Your task to perform on an android device: set the stopwatch Image 0: 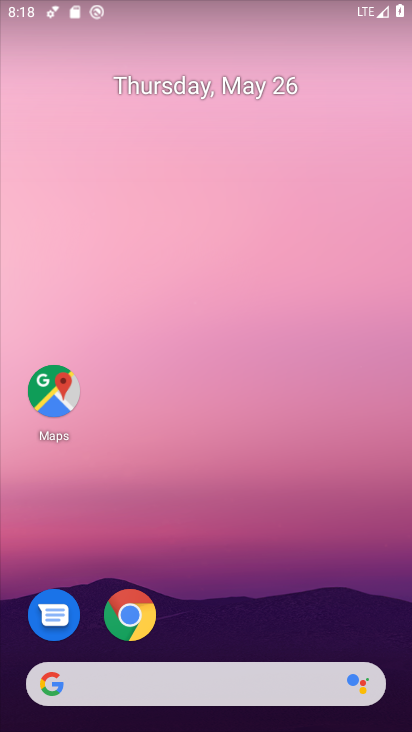
Step 0: drag from (187, 389) to (185, 158)
Your task to perform on an android device: set the stopwatch Image 1: 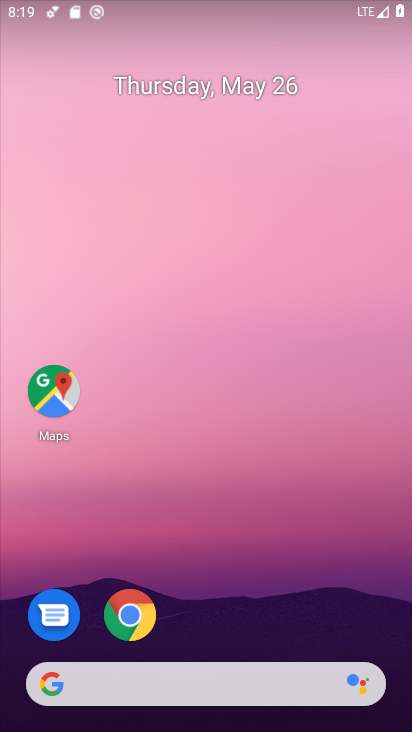
Step 1: drag from (237, 645) to (213, 256)
Your task to perform on an android device: set the stopwatch Image 2: 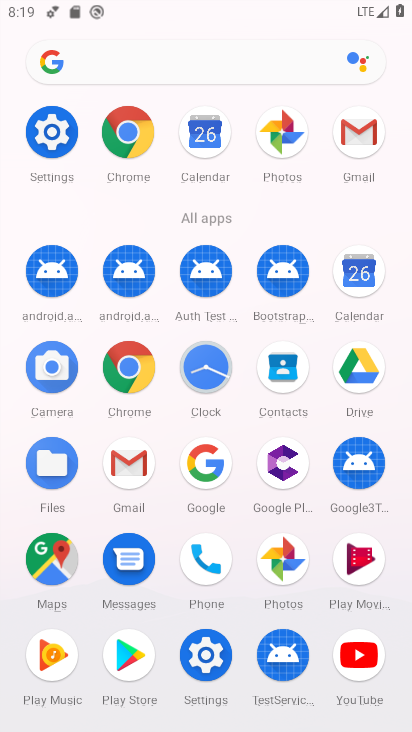
Step 2: click (208, 361)
Your task to perform on an android device: set the stopwatch Image 3: 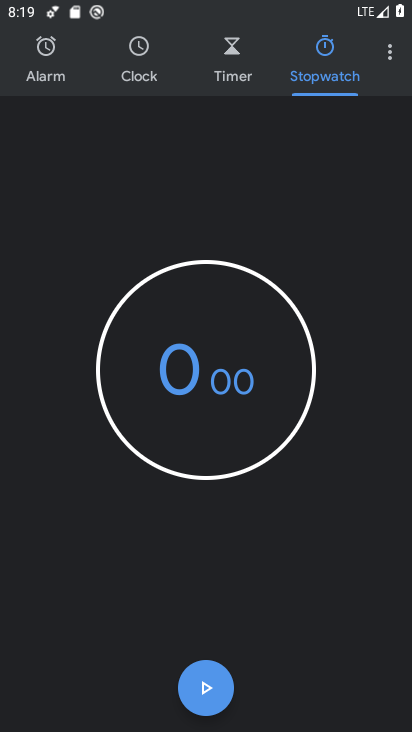
Step 3: task complete